Your task to perform on an android device: open app "Yahoo Mail" Image 0: 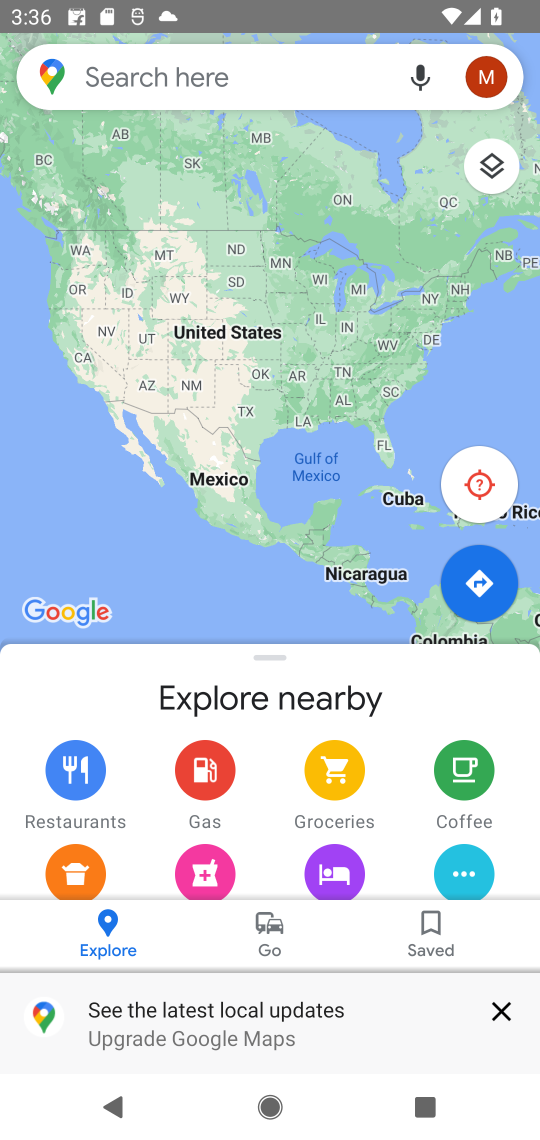
Step 0: press home button
Your task to perform on an android device: open app "Yahoo Mail" Image 1: 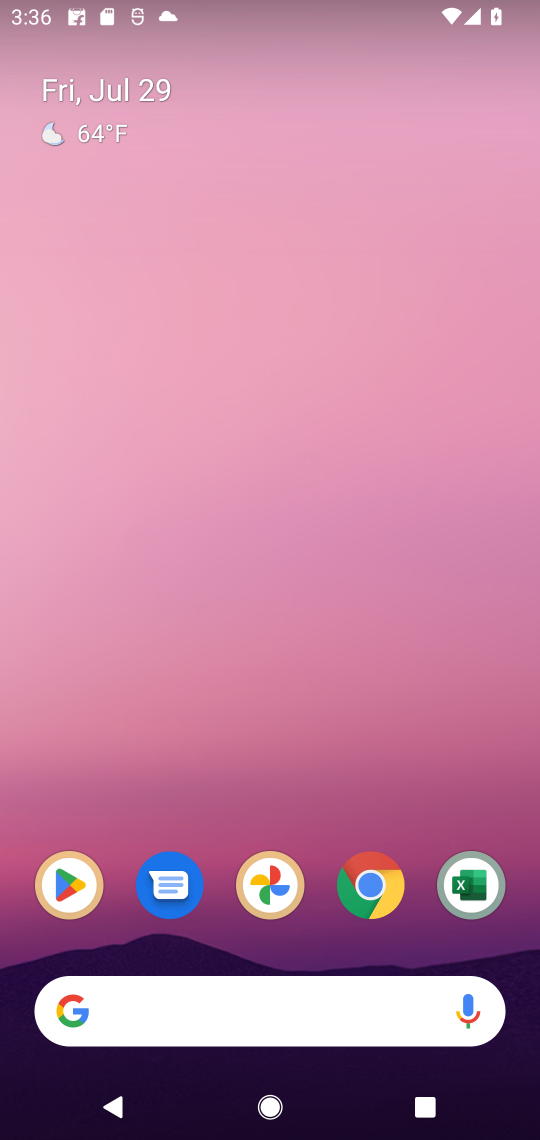
Step 1: click (39, 882)
Your task to perform on an android device: open app "Yahoo Mail" Image 2: 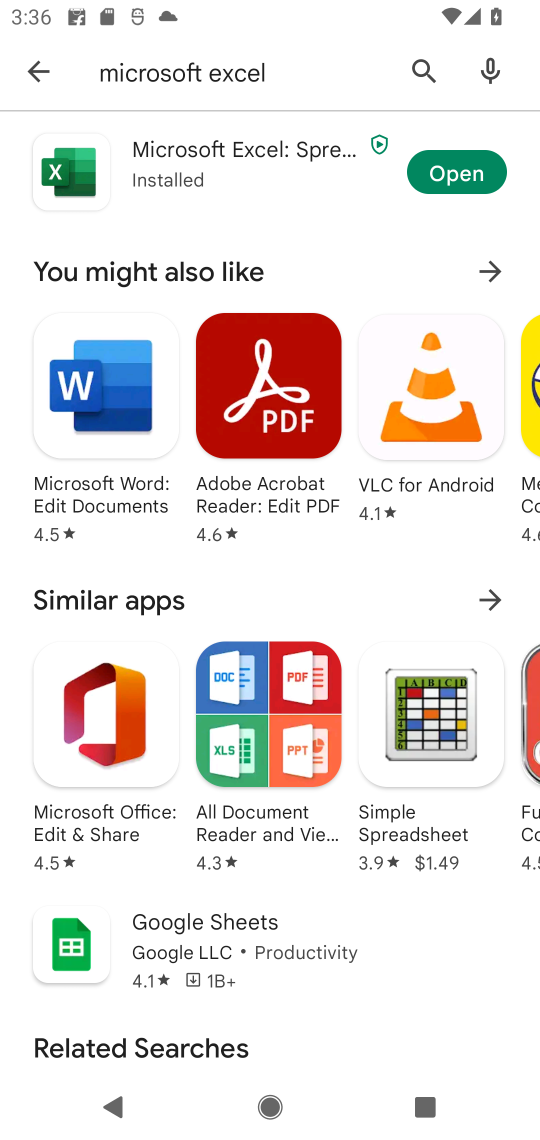
Step 2: click (412, 71)
Your task to perform on an android device: open app "Yahoo Mail" Image 3: 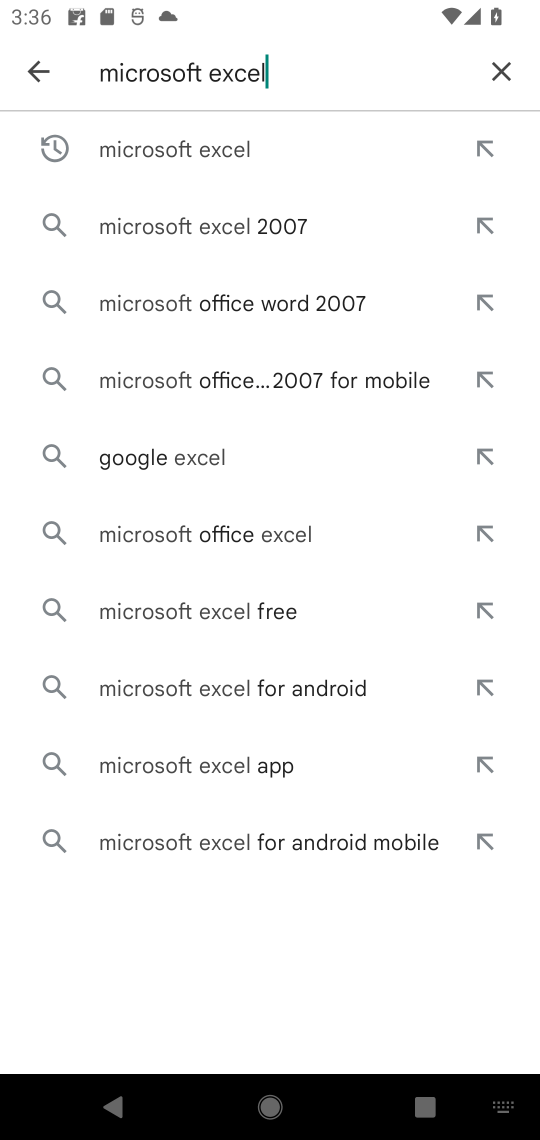
Step 3: click (504, 72)
Your task to perform on an android device: open app "Yahoo Mail" Image 4: 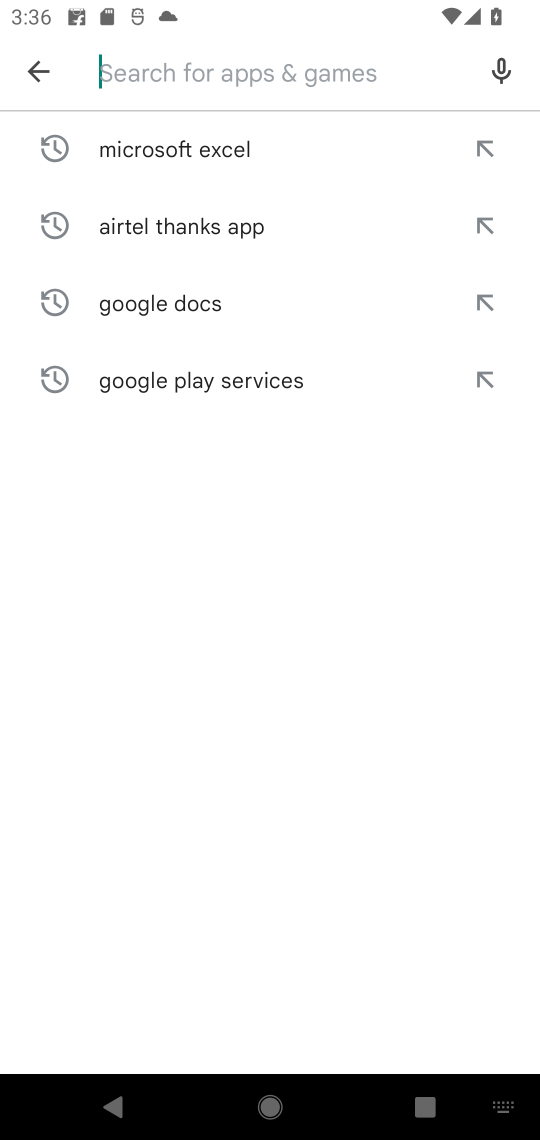
Step 4: type "Yahoo Mail"
Your task to perform on an android device: open app "Yahoo Mail" Image 5: 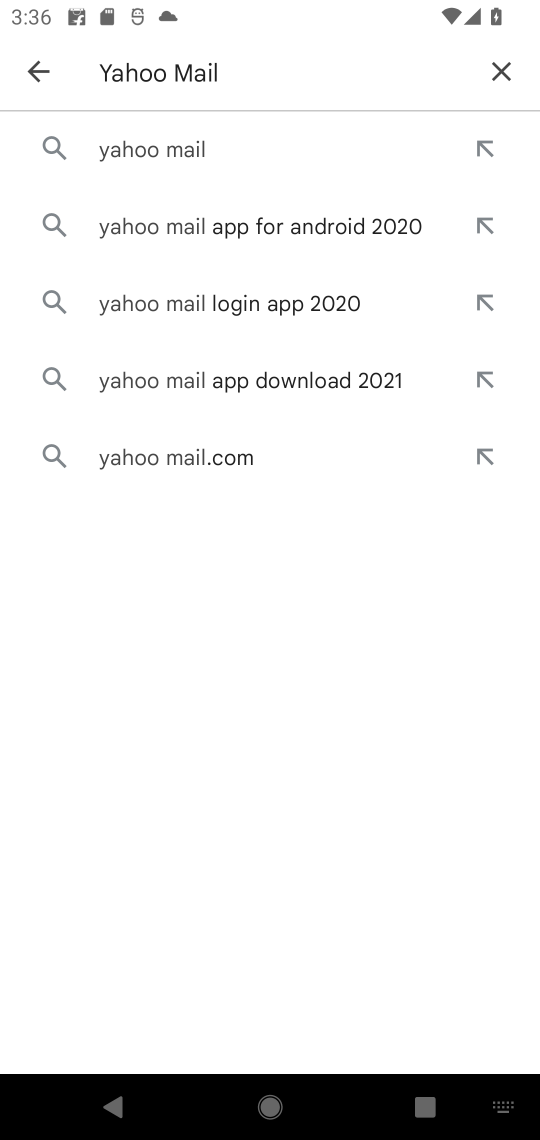
Step 5: click (156, 156)
Your task to perform on an android device: open app "Yahoo Mail" Image 6: 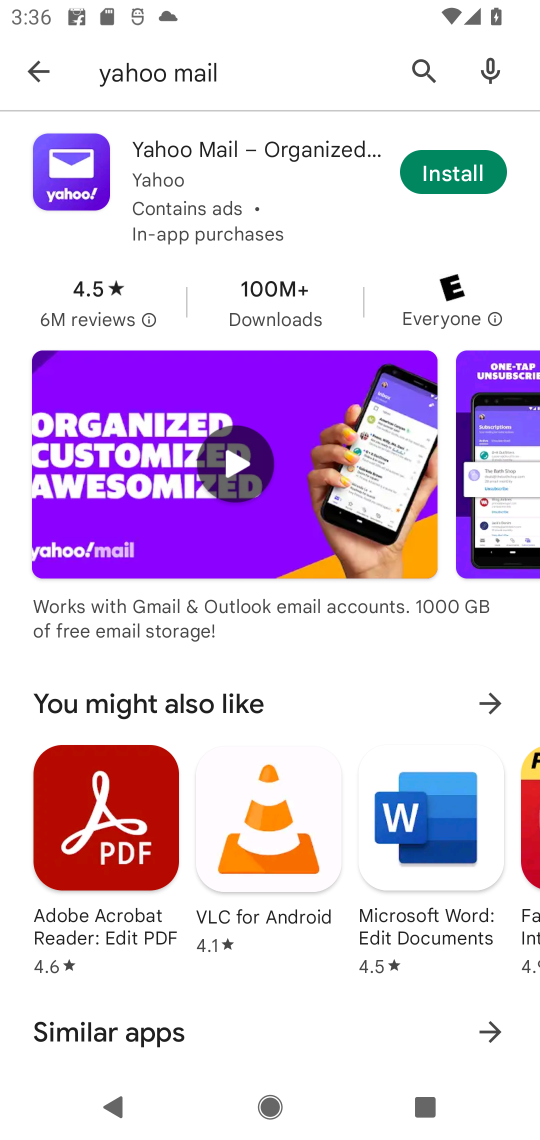
Step 6: click (428, 177)
Your task to perform on an android device: open app "Yahoo Mail" Image 7: 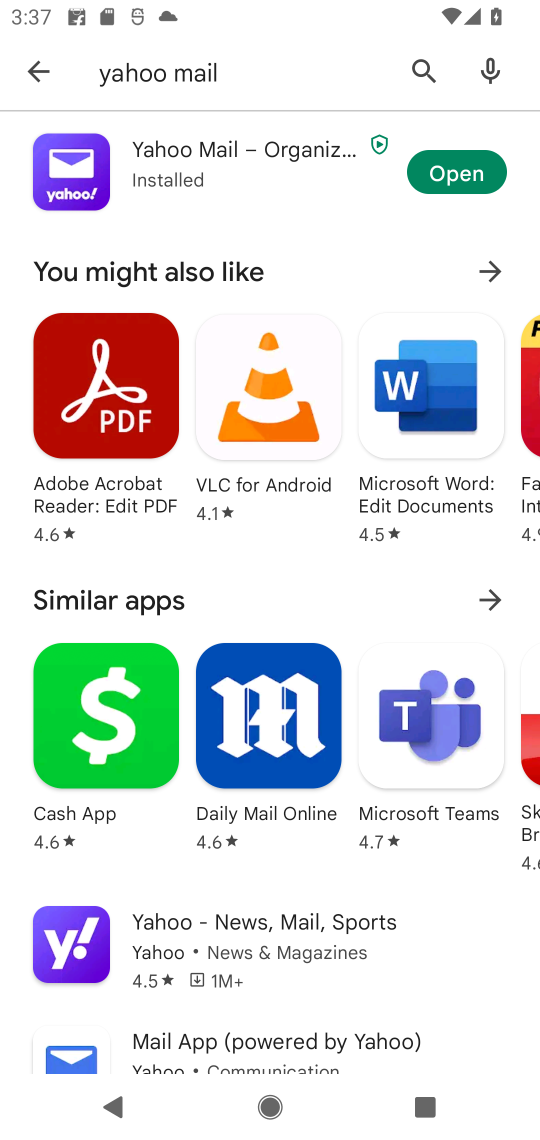
Step 7: click (428, 177)
Your task to perform on an android device: open app "Yahoo Mail" Image 8: 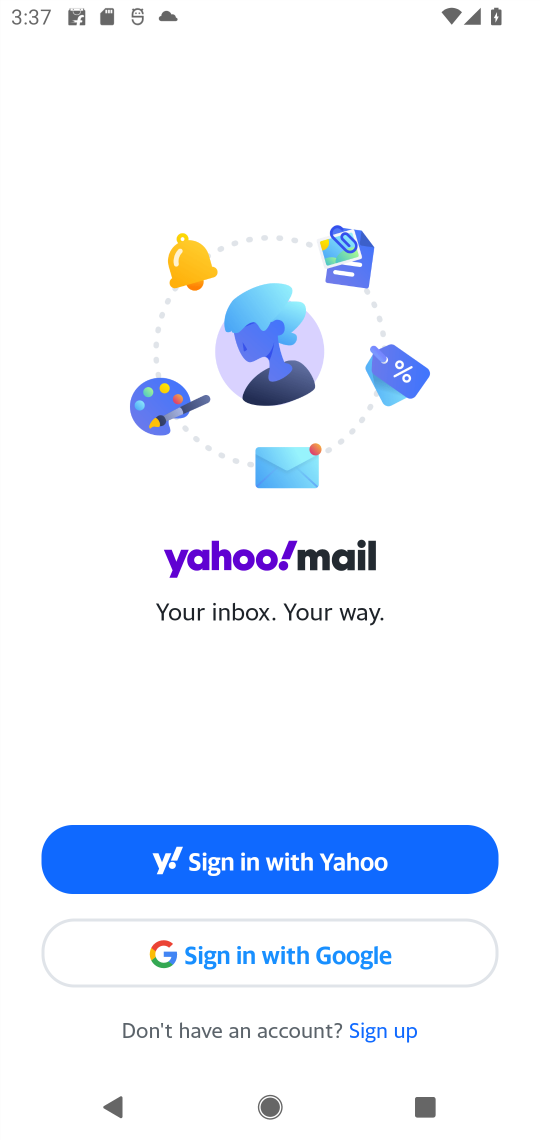
Step 8: task complete